Your task to perform on an android device: install app "HBO Max: Stream TV & Movies" Image 0: 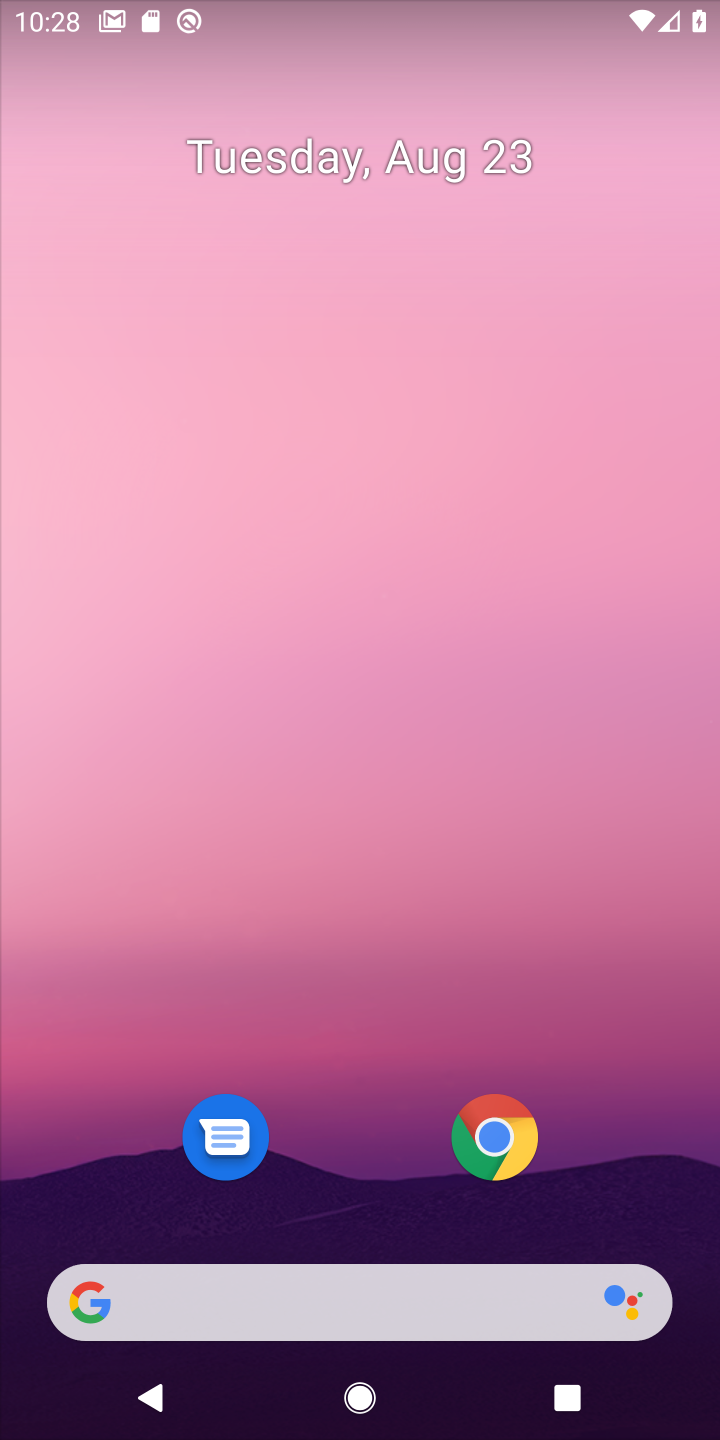
Step 0: drag from (310, 1252) to (388, 732)
Your task to perform on an android device: install app "HBO Max: Stream TV & Movies" Image 1: 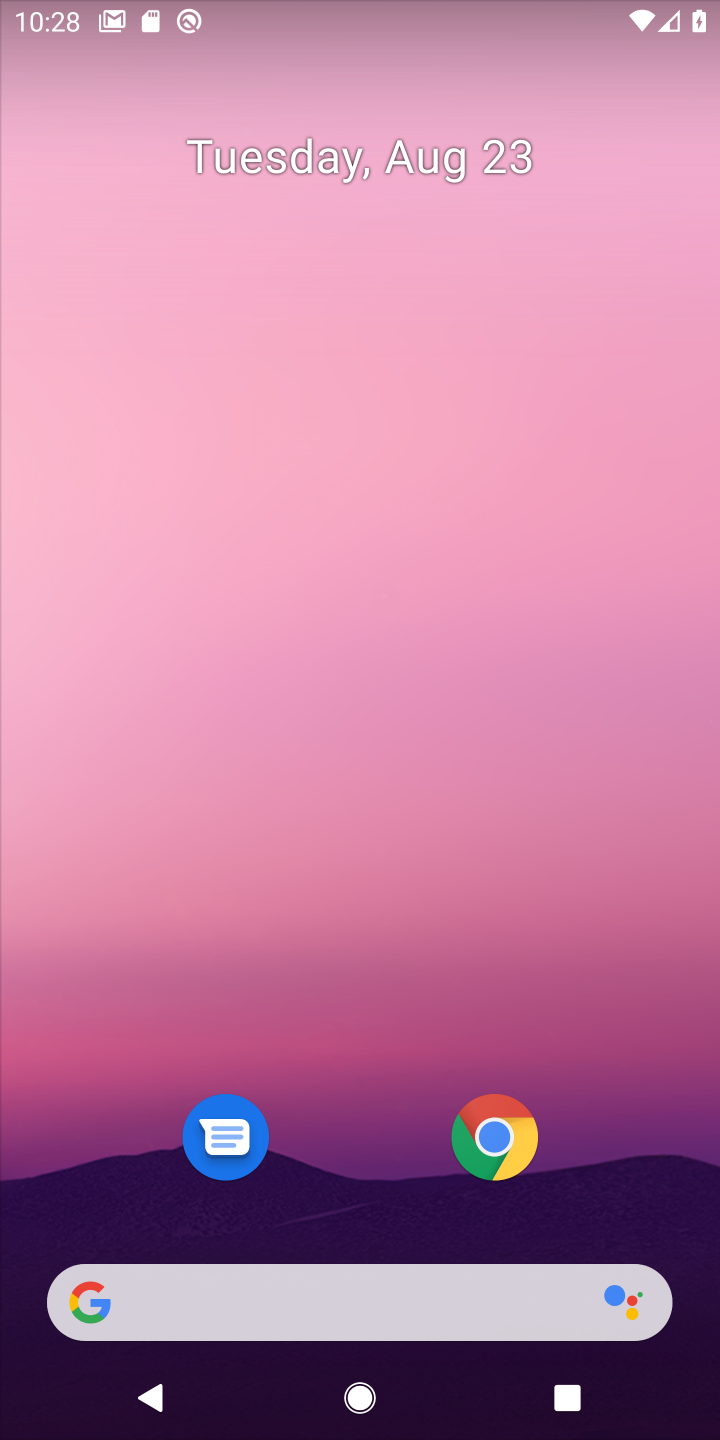
Step 1: drag from (408, 1096) to (423, 676)
Your task to perform on an android device: install app "HBO Max: Stream TV & Movies" Image 2: 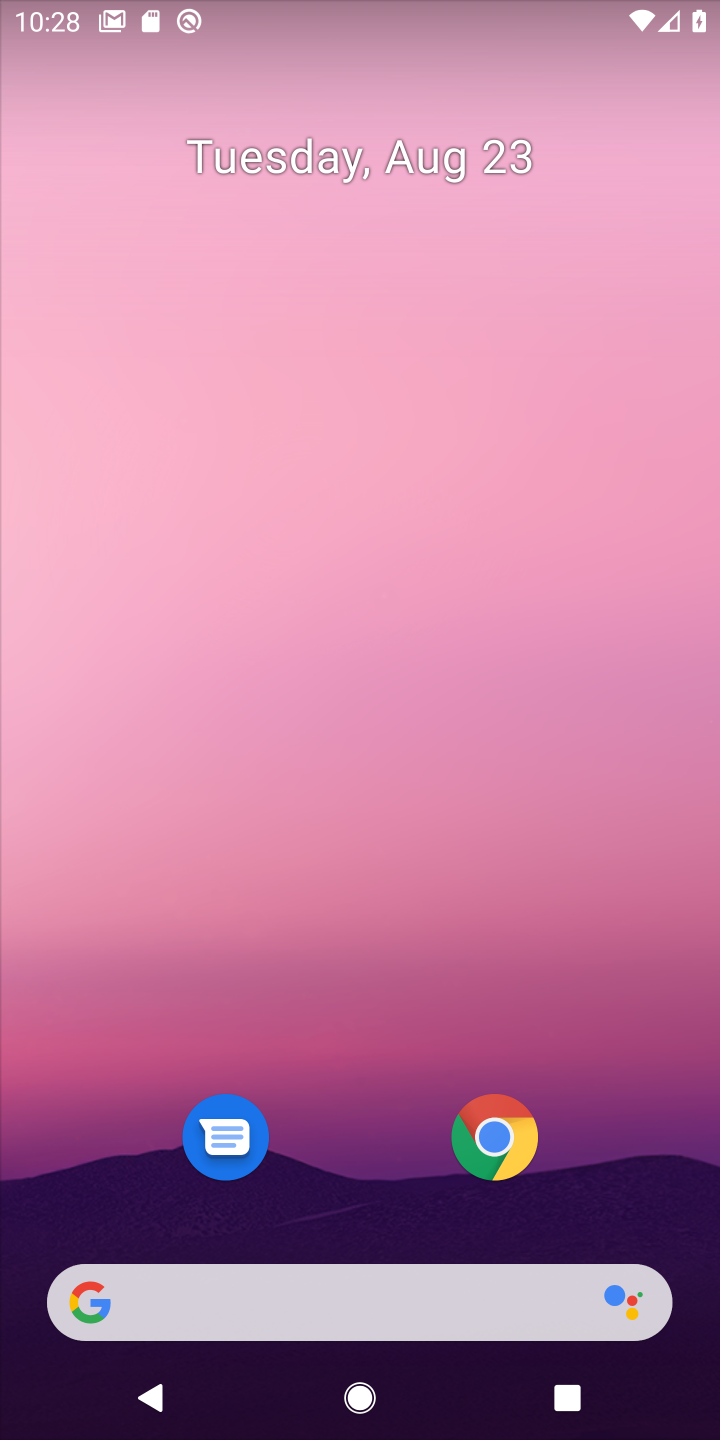
Step 2: drag from (325, 906) to (379, 78)
Your task to perform on an android device: install app "HBO Max: Stream TV & Movies" Image 3: 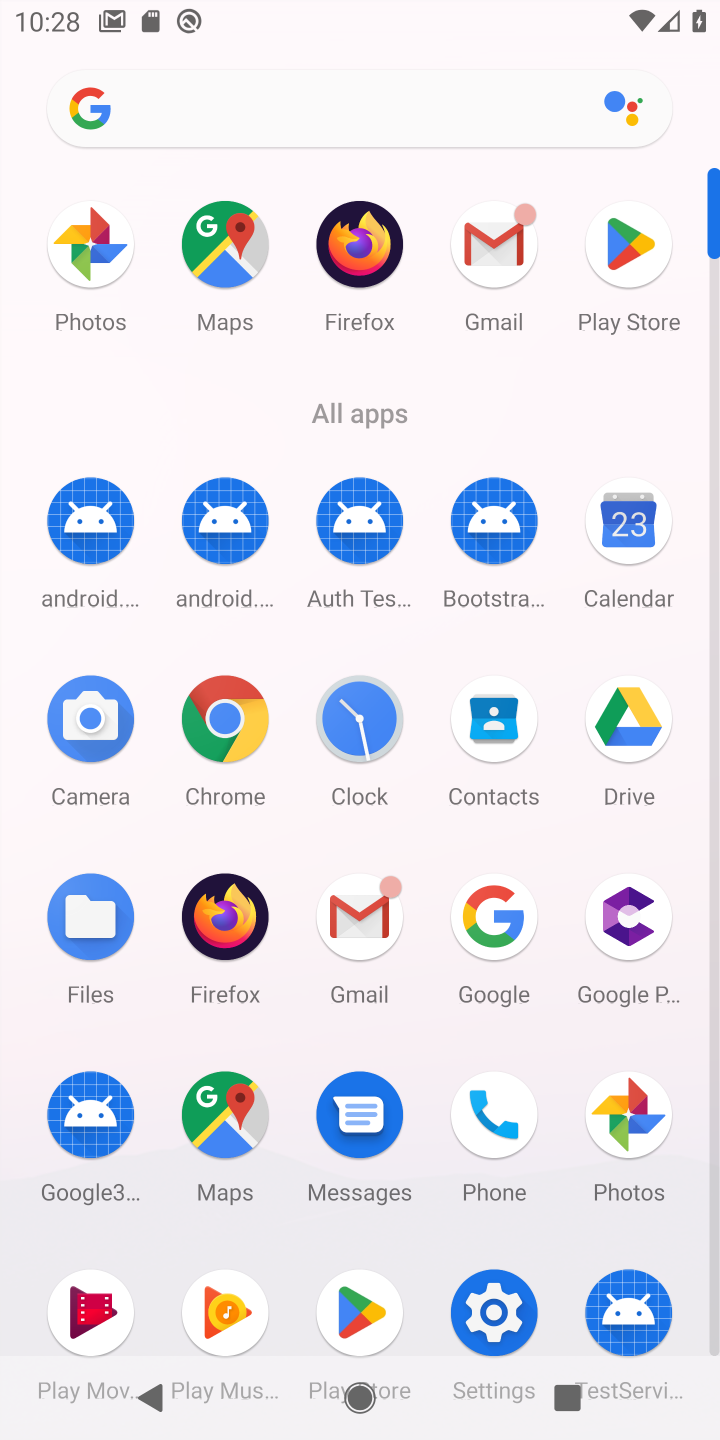
Step 3: click (644, 279)
Your task to perform on an android device: install app "HBO Max: Stream TV & Movies" Image 4: 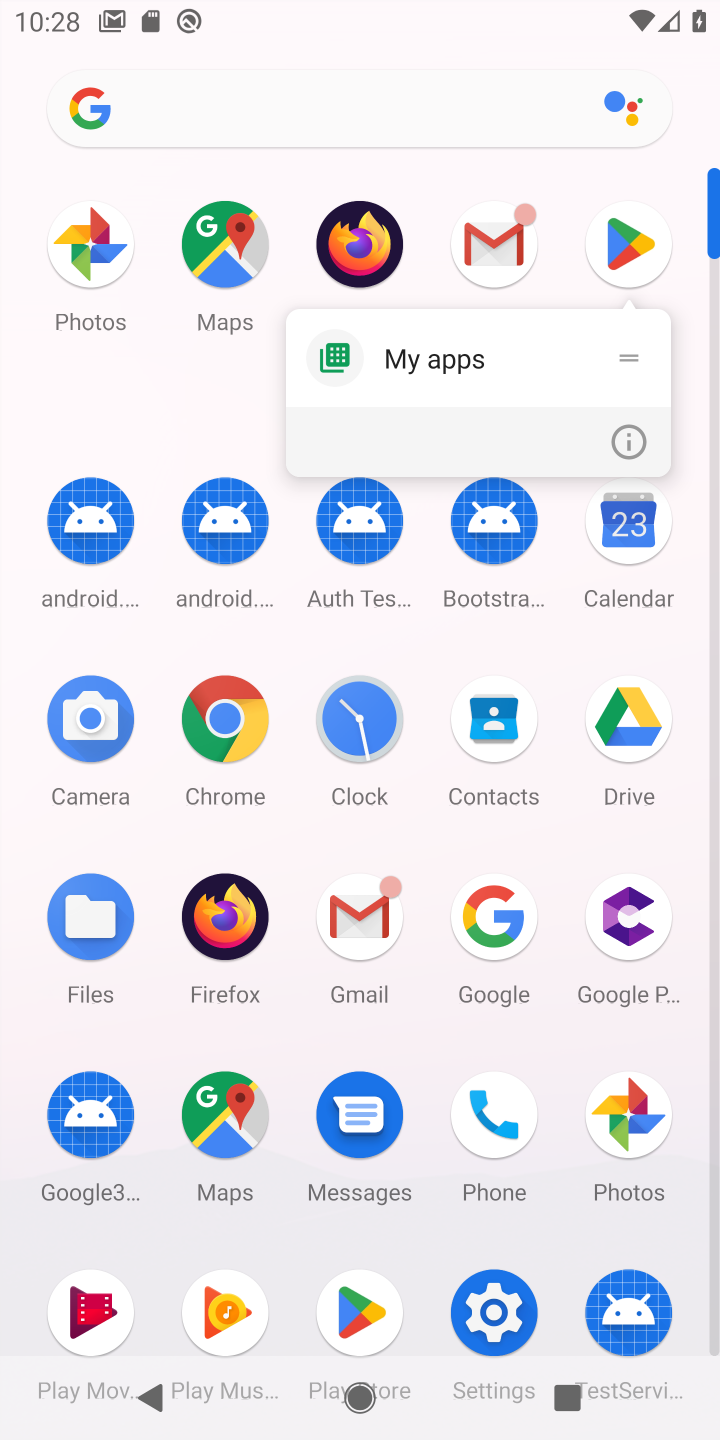
Step 4: click (631, 257)
Your task to perform on an android device: install app "HBO Max: Stream TV & Movies" Image 5: 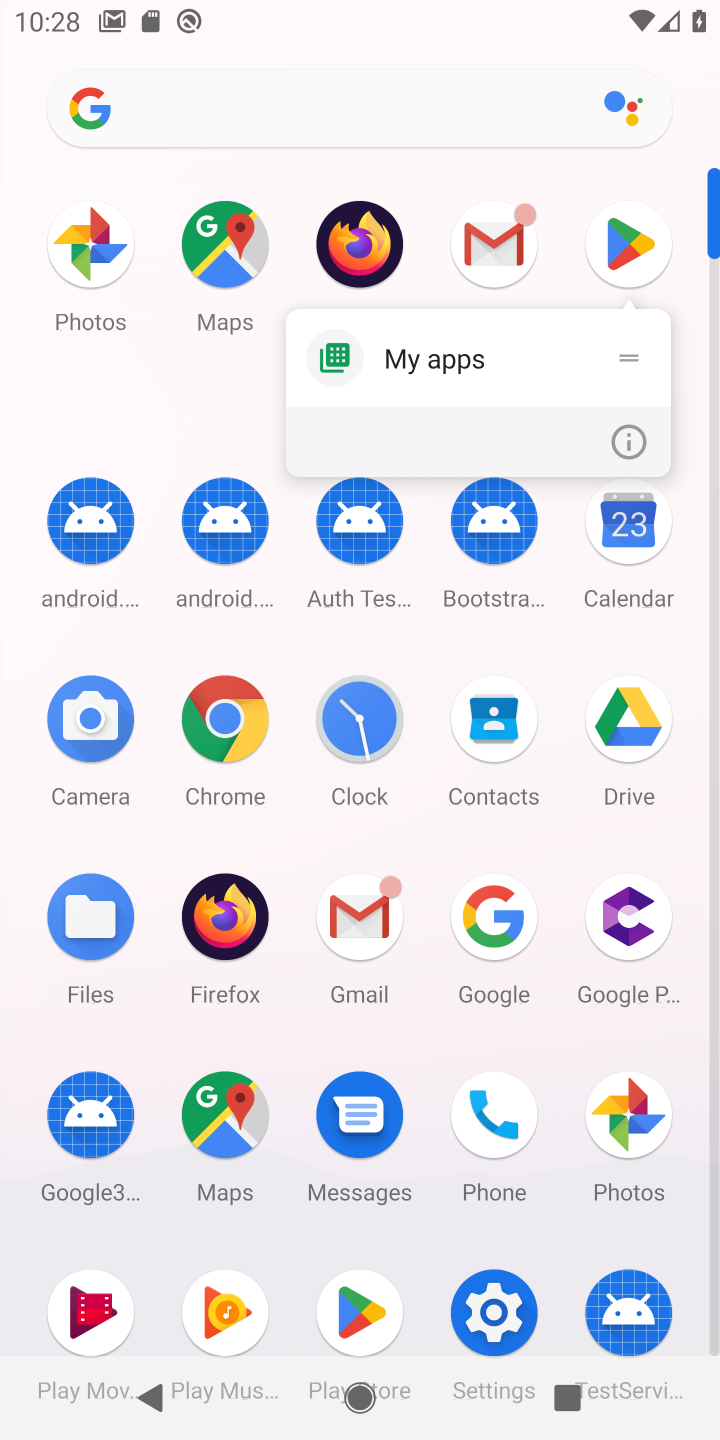
Step 5: click (631, 272)
Your task to perform on an android device: install app "HBO Max: Stream TV & Movies" Image 6: 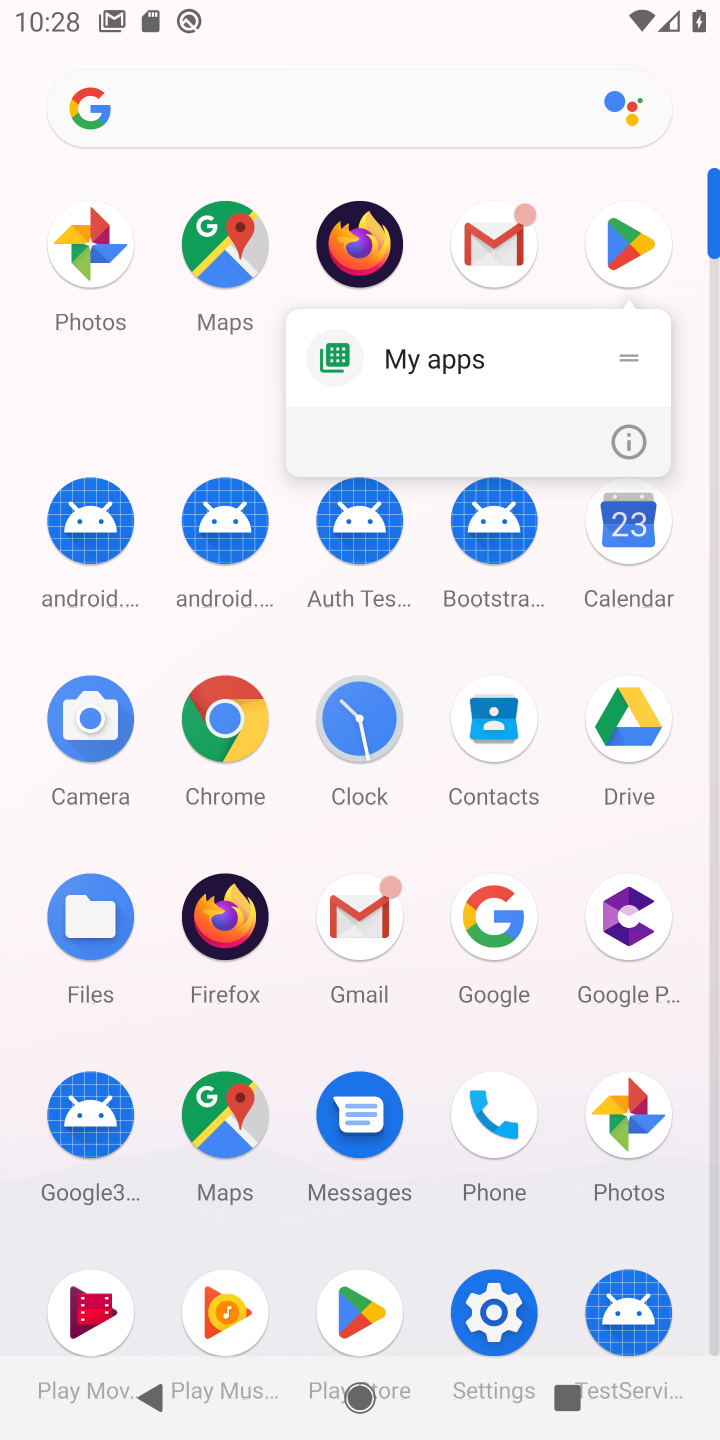
Step 6: click (621, 253)
Your task to perform on an android device: install app "HBO Max: Stream TV & Movies" Image 7: 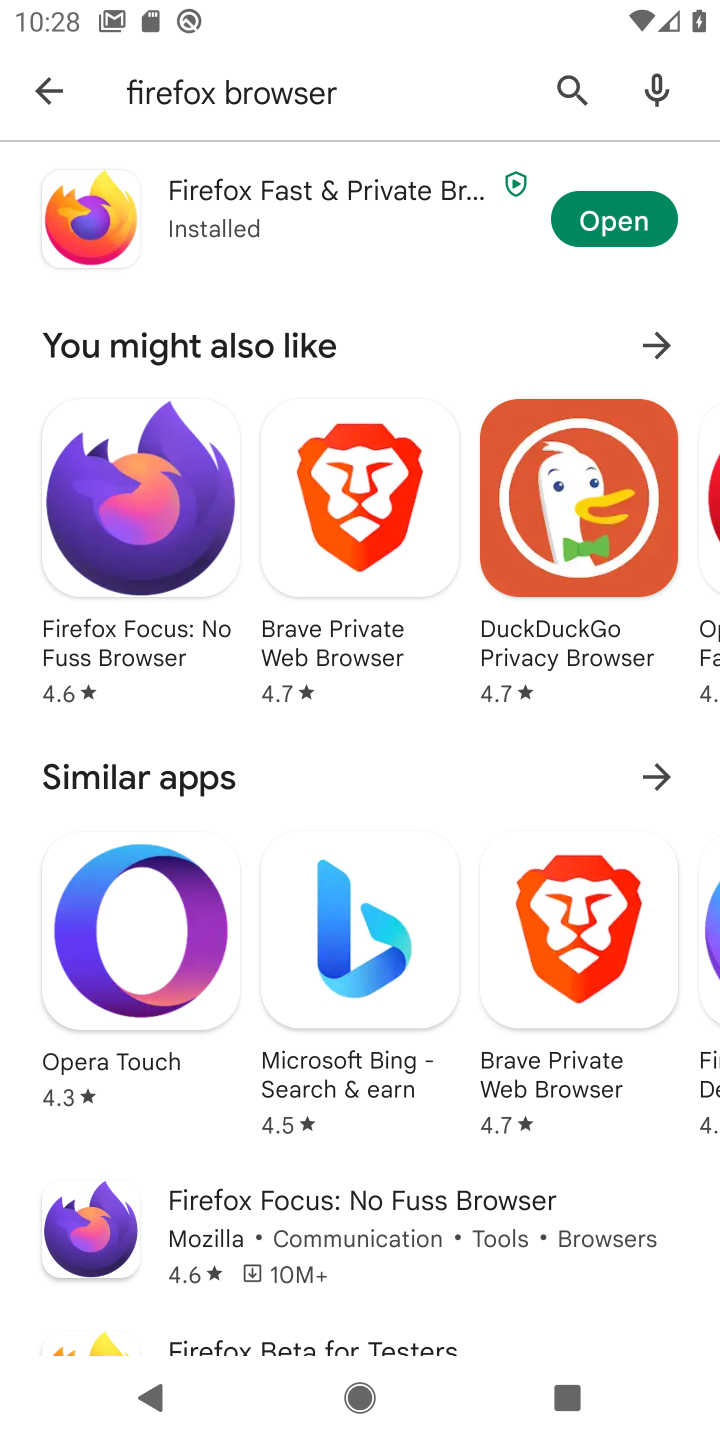
Step 7: click (280, 87)
Your task to perform on an android device: install app "HBO Max: Stream TV & Movies" Image 8: 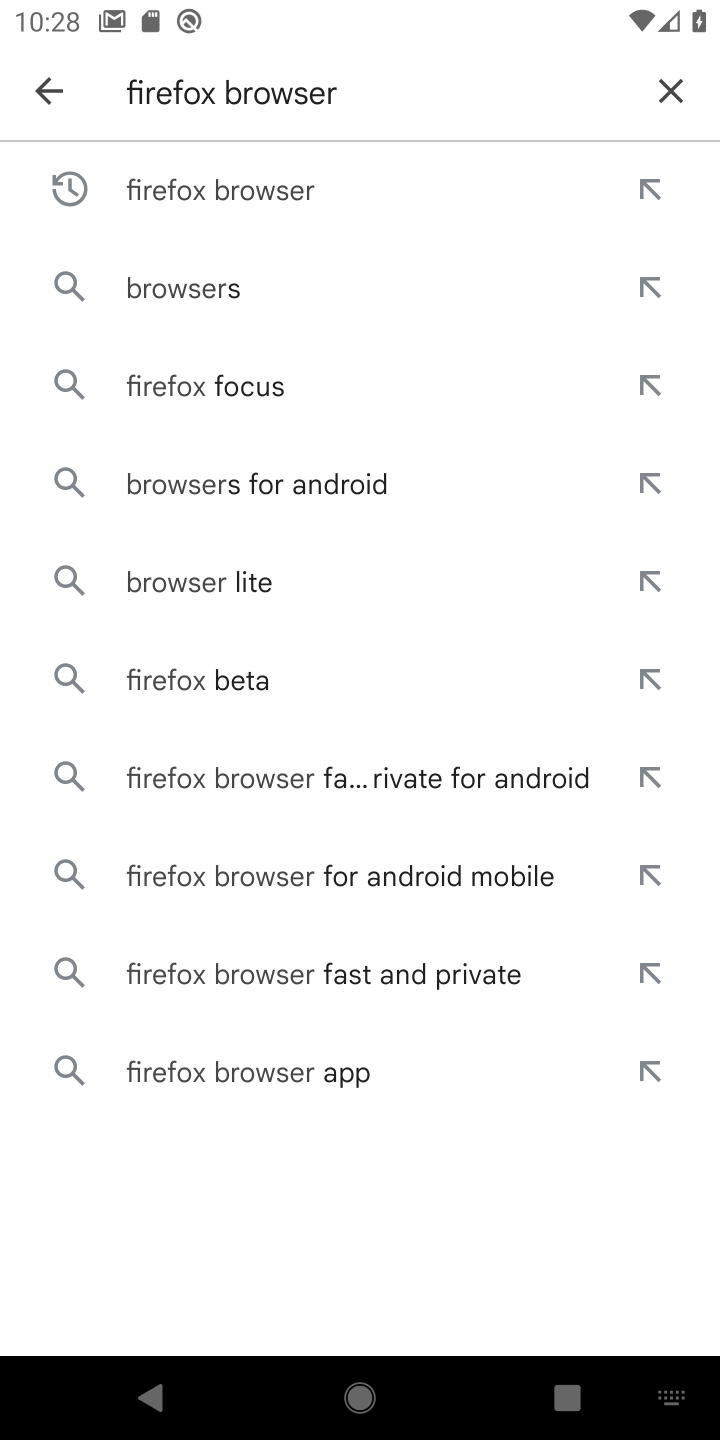
Step 8: click (667, 87)
Your task to perform on an android device: install app "HBO Max: Stream TV & Movies" Image 9: 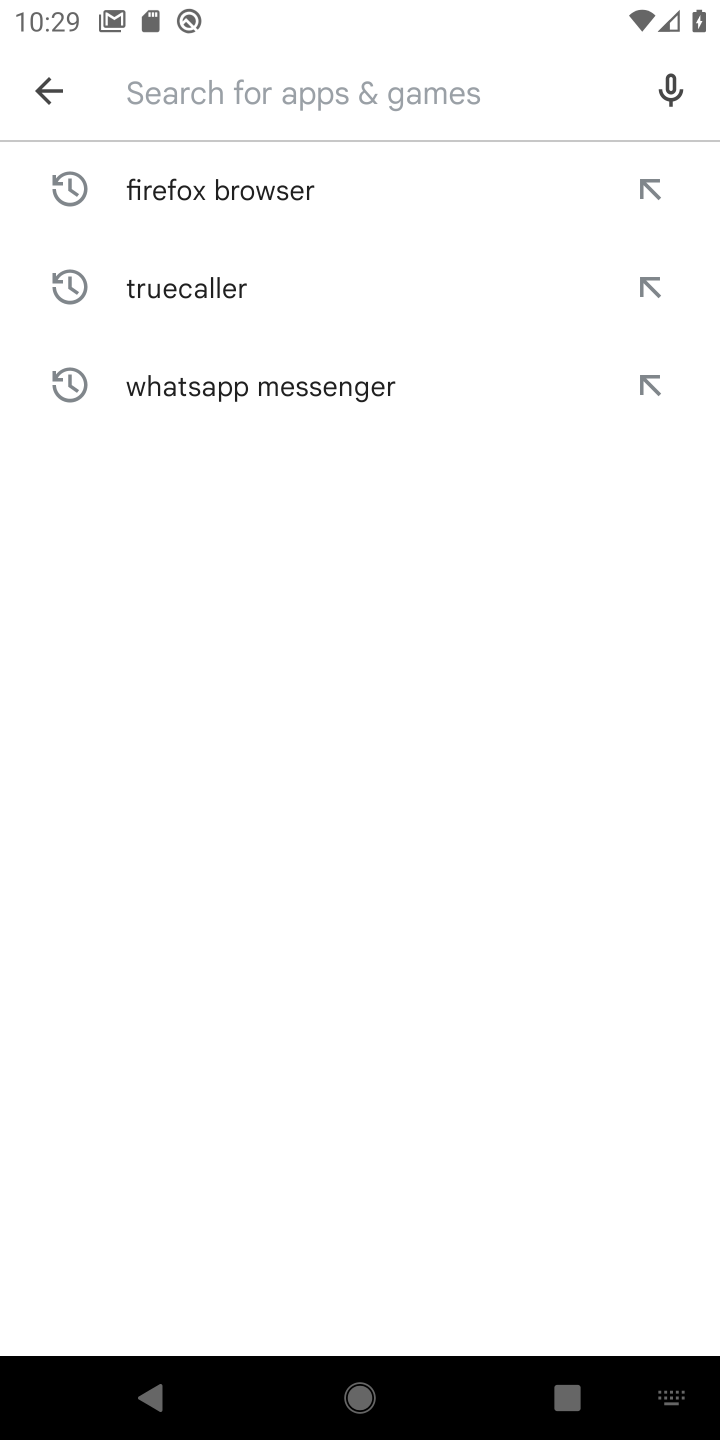
Step 9: type "HBO Max"
Your task to perform on an android device: install app "HBO Max: Stream TV & Movies" Image 10: 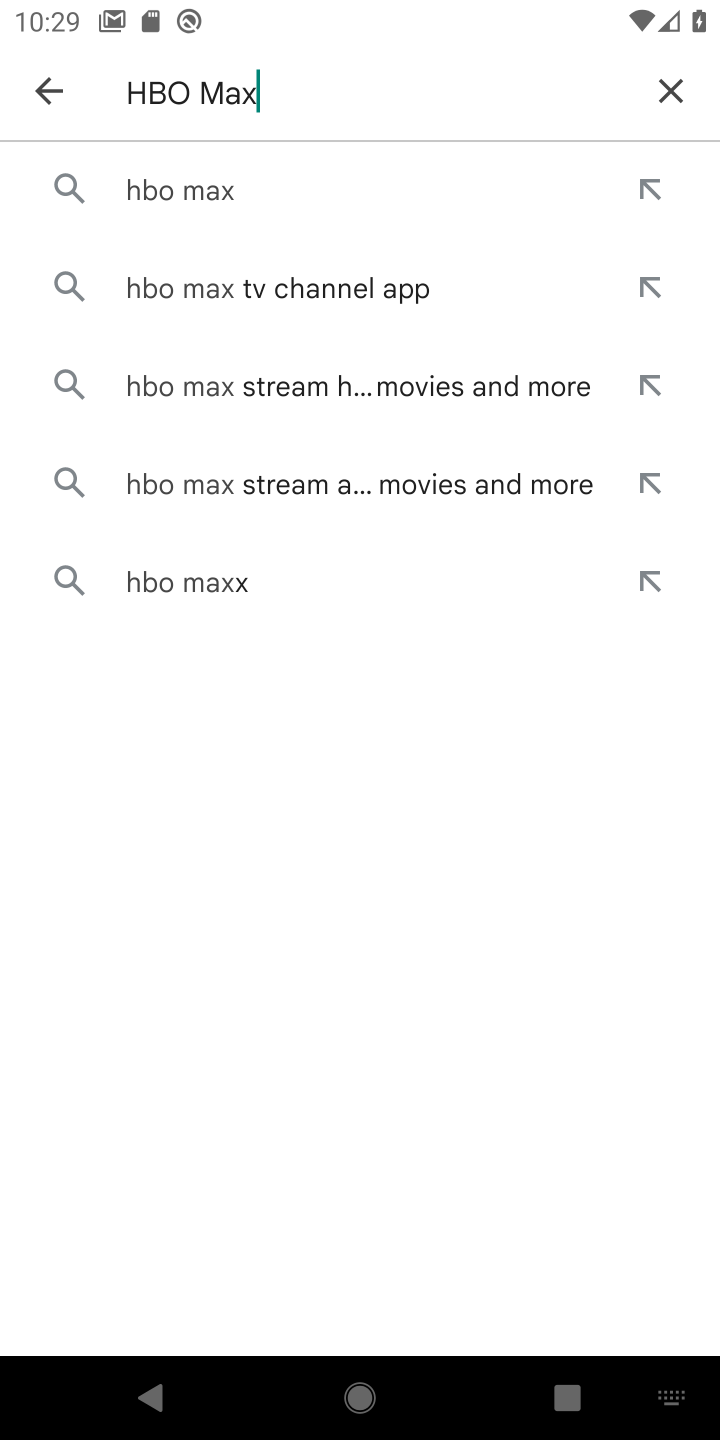
Step 10: click (221, 171)
Your task to perform on an android device: install app "HBO Max: Stream TV & Movies" Image 11: 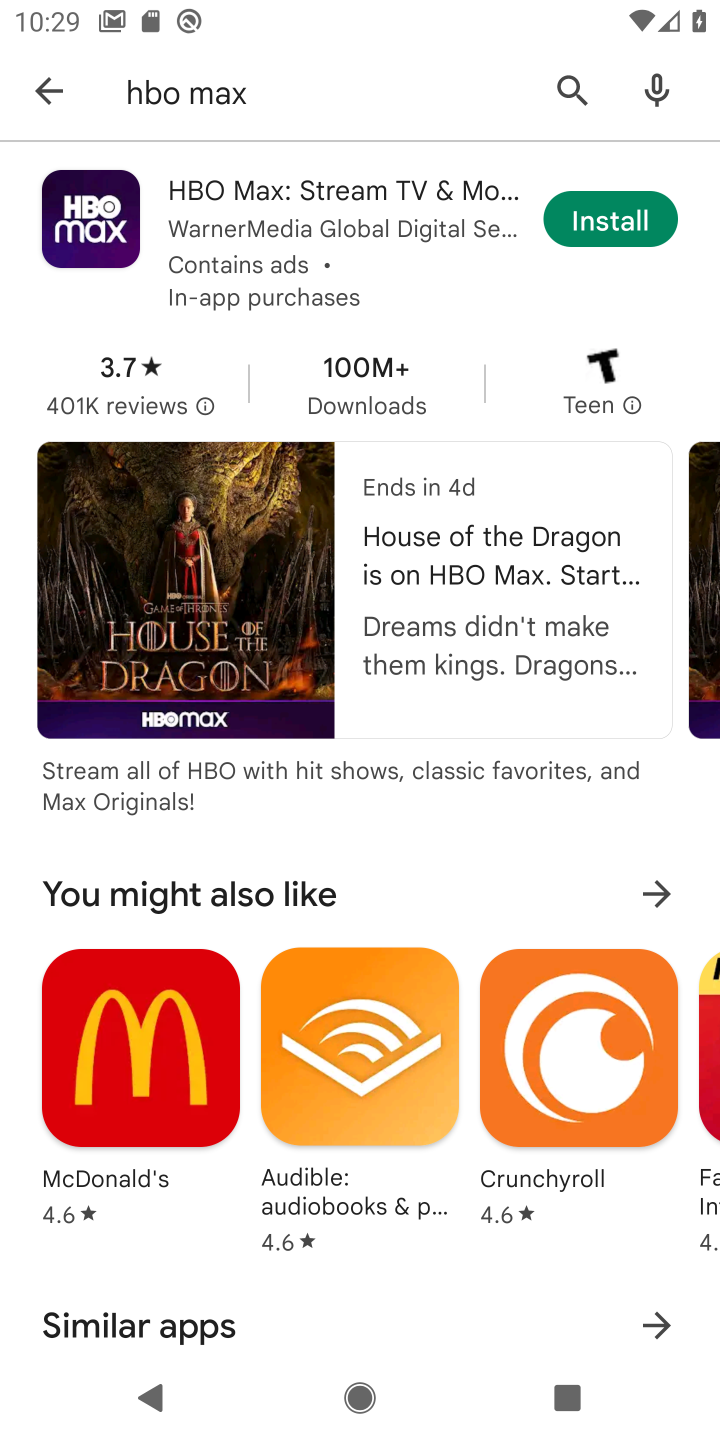
Step 11: click (628, 218)
Your task to perform on an android device: install app "HBO Max: Stream TV & Movies" Image 12: 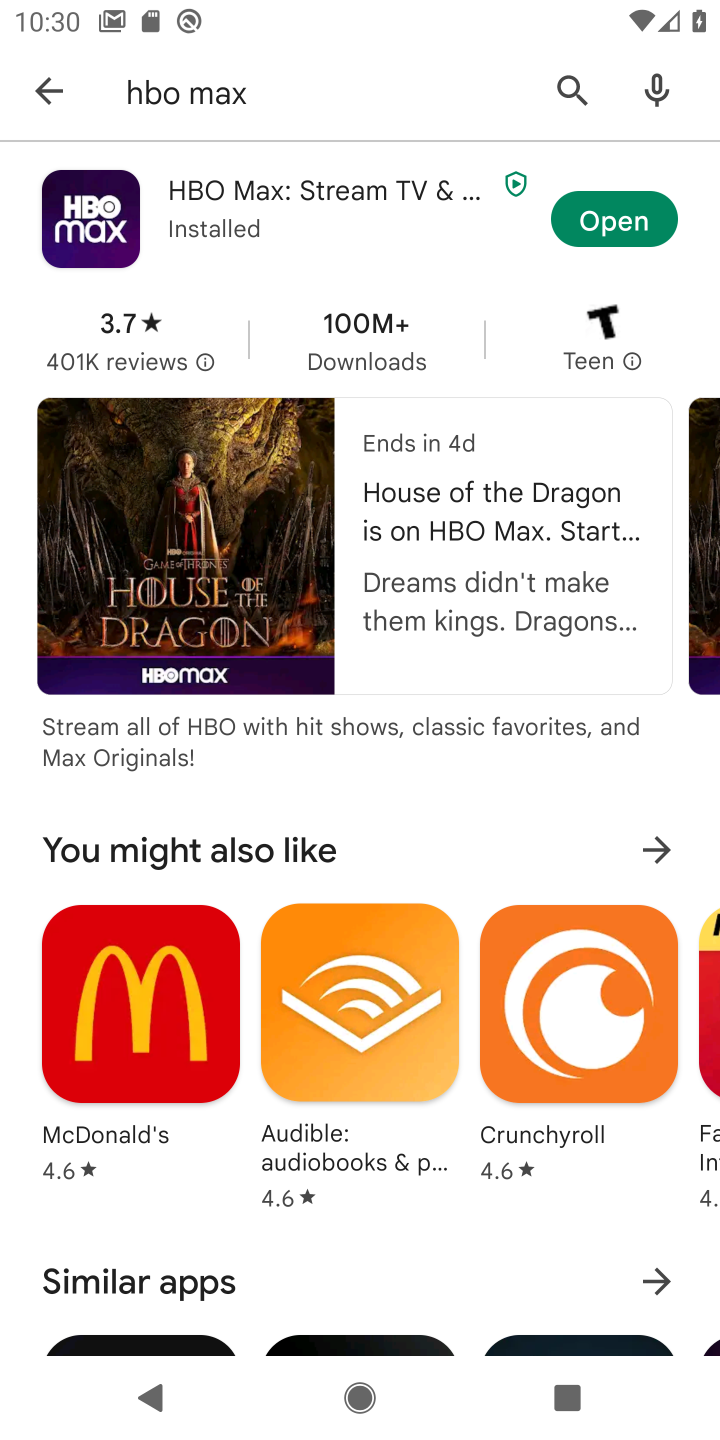
Step 12: task complete